Your task to perform on an android device: see creations saved in the google photos Image 0: 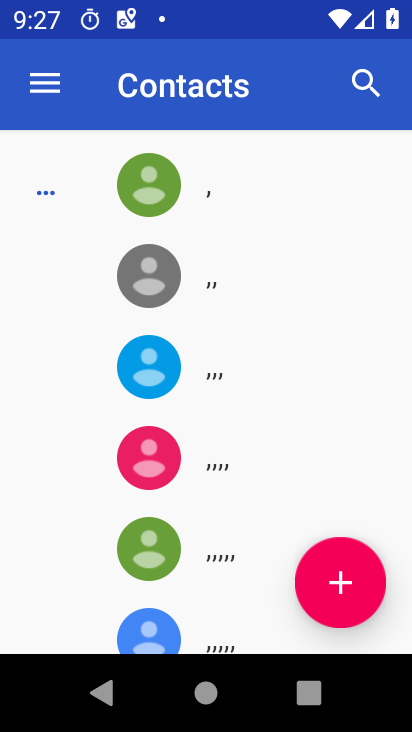
Step 0: press home button
Your task to perform on an android device: see creations saved in the google photos Image 1: 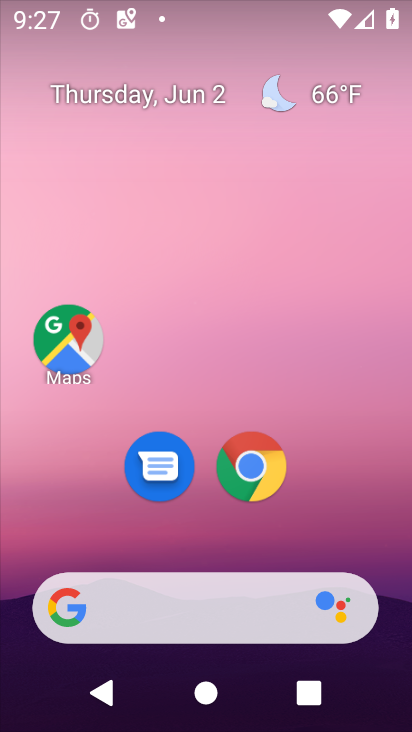
Step 1: drag from (22, 655) to (353, 30)
Your task to perform on an android device: see creations saved in the google photos Image 2: 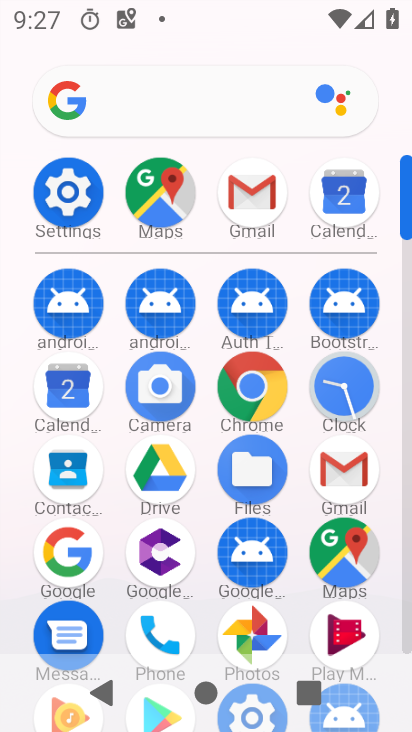
Step 2: click (253, 625)
Your task to perform on an android device: see creations saved in the google photos Image 3: 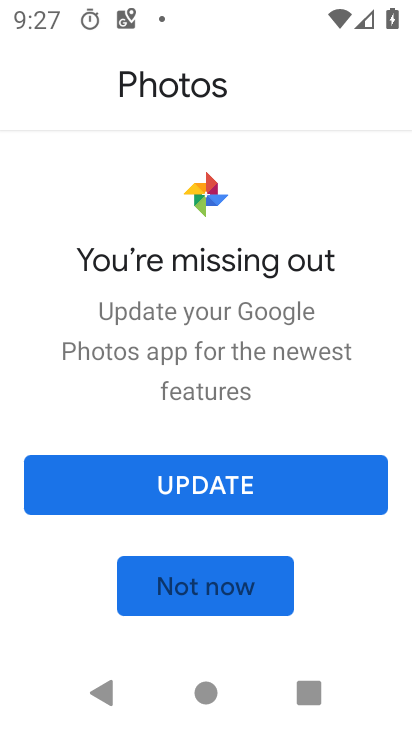
Step 3: click (198, 596)
Your task to perform on an android device: see creations saved in the google photos Image 4: 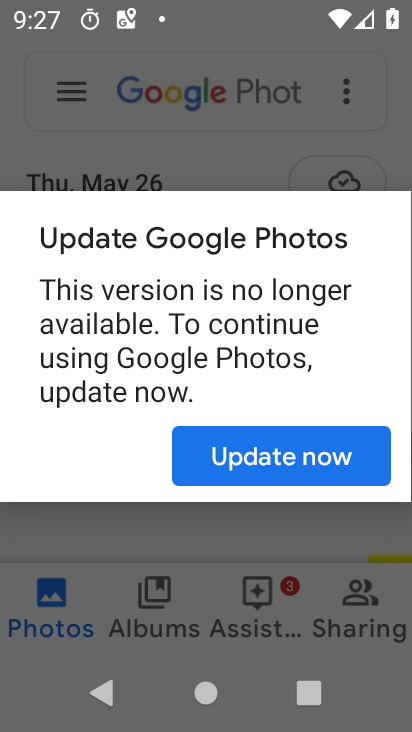
Step 4: click (276, 444)
Your task to perform on an android device: see creations saved in the google photos Image 5: 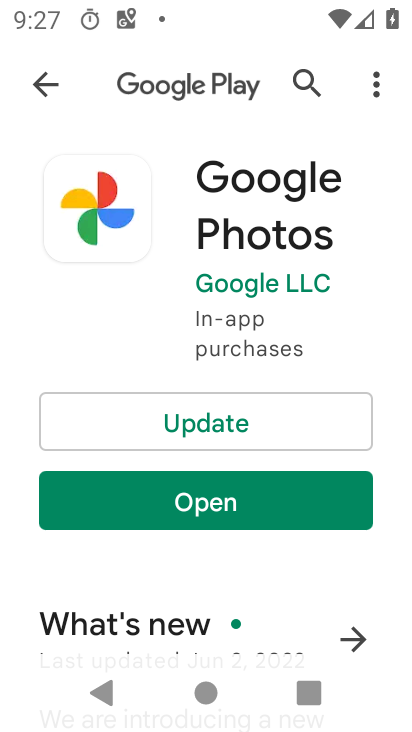
Step 5: click (265, 511)
Your task to perform on an android device: see creations saved in the google photos Image 6: 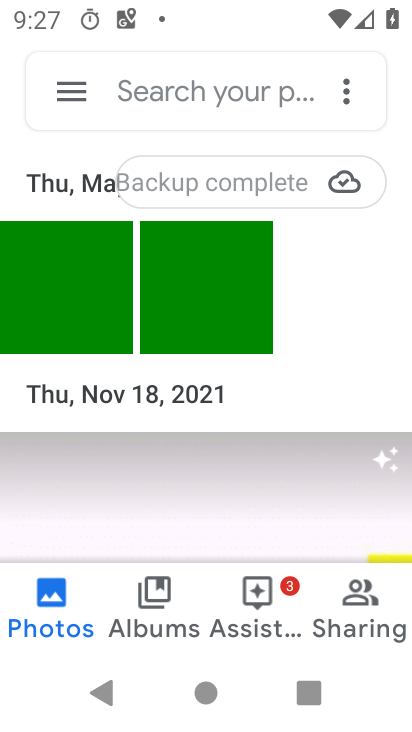
Step 6: click (197, 101)
Your task to perform on an android device: see creations saved in the google photos Image 7: 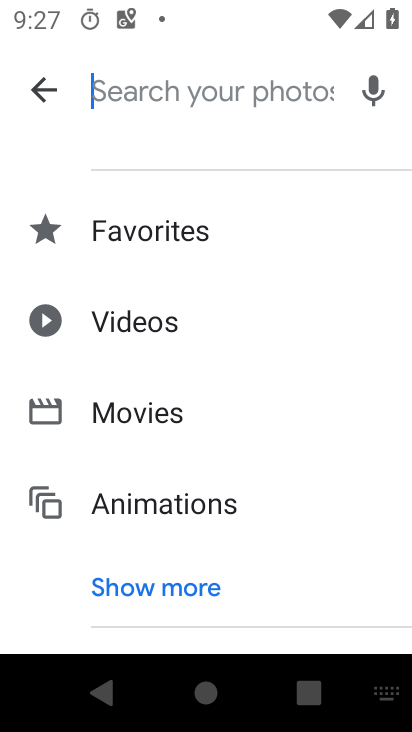
Step 7: click (160, 582)
Your task to perform on an android device: see creations saved in the google photos Image 8: 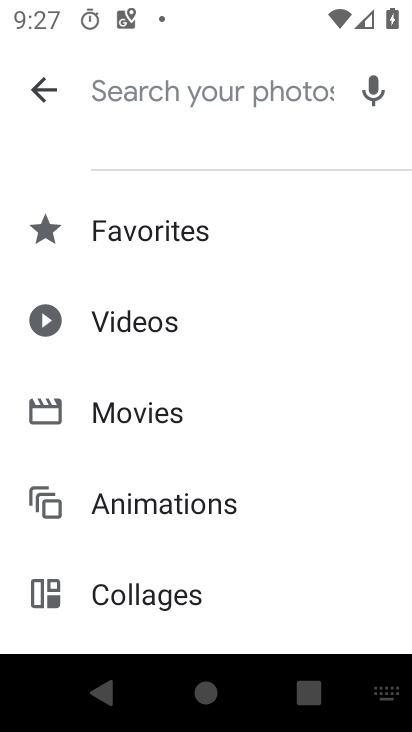
Step 8: drag from (4, 502) to (320, 65)
Your task to perform on an android device: see creations saved in the google photos Image 9: 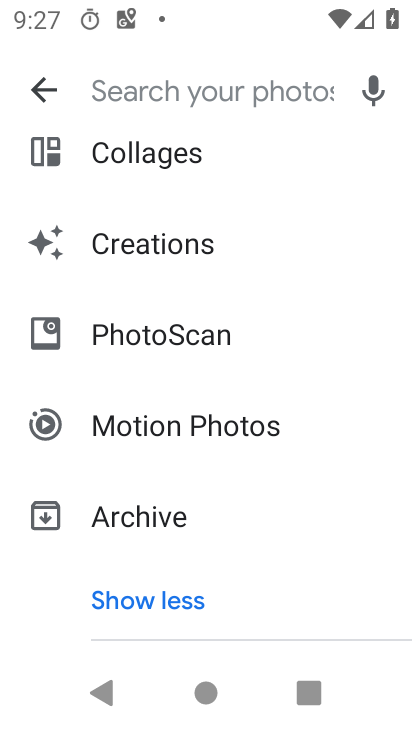
Step 9: click (145, 244)
Your task to perform on an android device: see creations saved in the google photos Image 10: 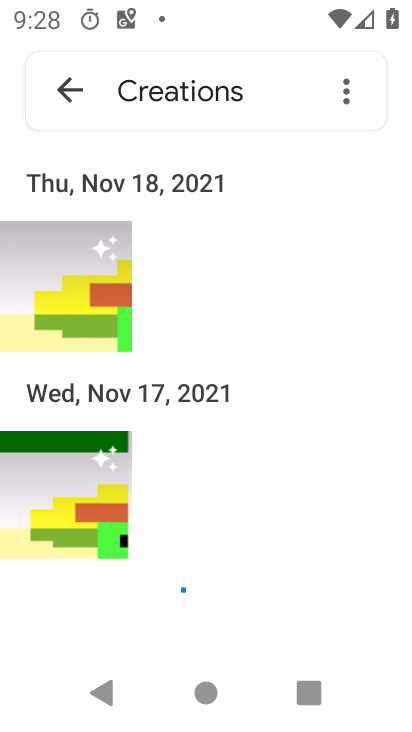
Step 10: task complete